Your task to perform on an android device: toggle notification dots Image 0: 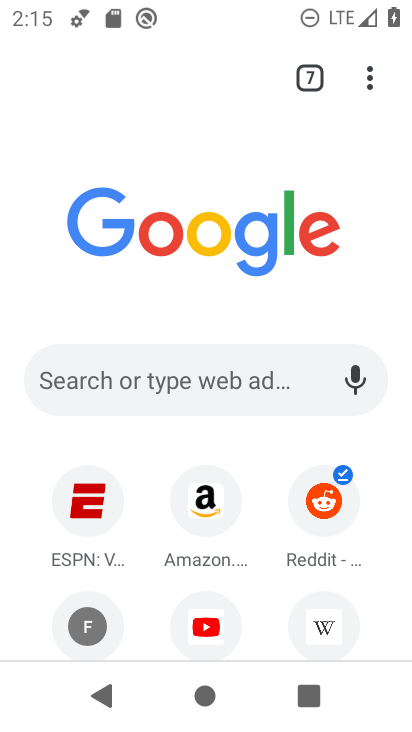
Step 0: press home button
Your task to perform on an android device: toggle notification dots Image 1: 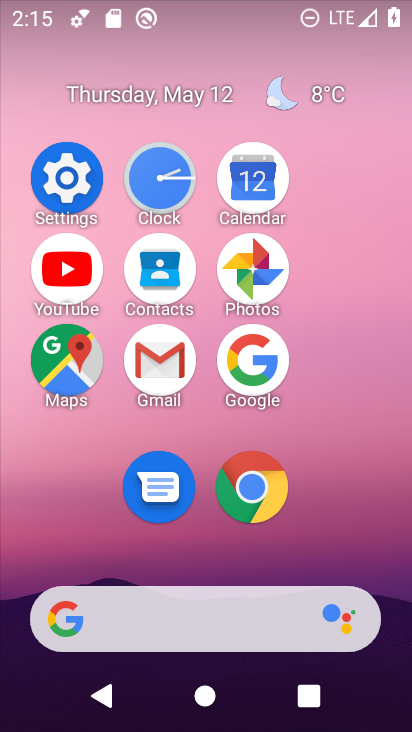
Step 1: click (52, 184)
Your task to perform on an android device: toggle notification dots Image 2: 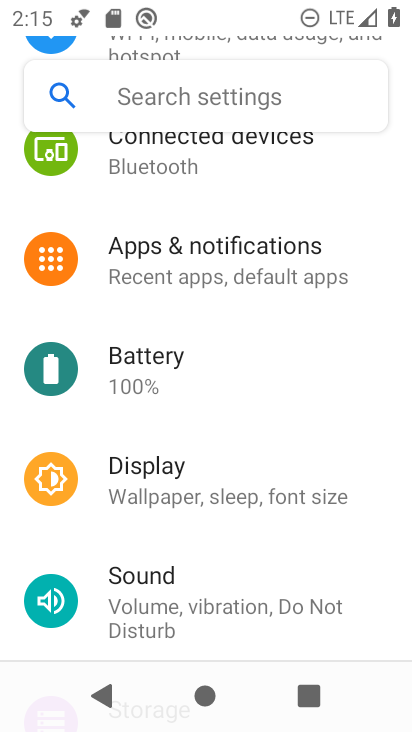
Step 2: click (264, 246)
Your task to perform on an android device: toggle notification dots Image 3: 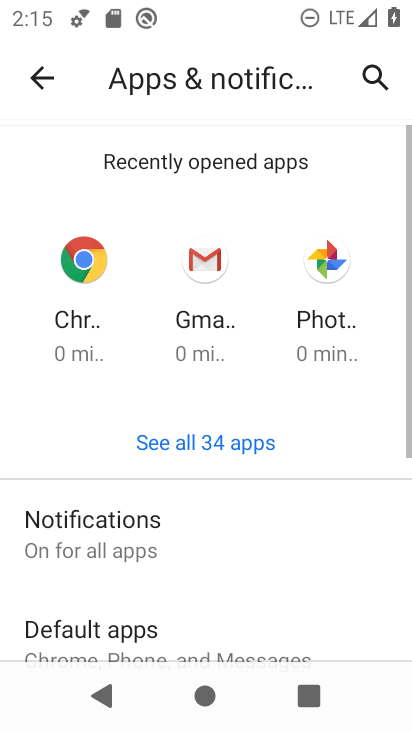
Step 3: drag from (270, 587) to (274, 169)
Your task to perform on an android device: toggle notification dots Image 4: 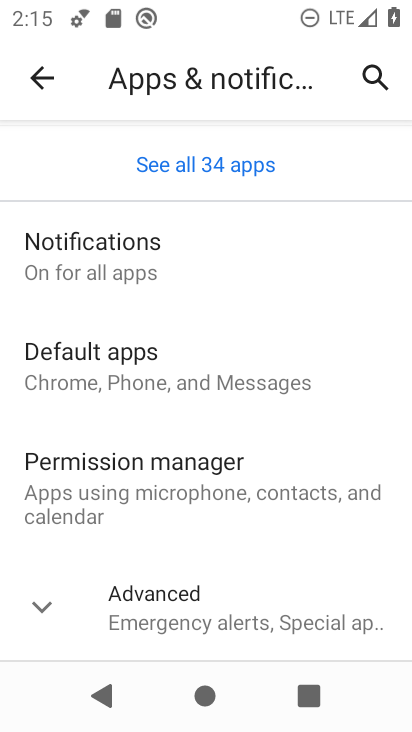
Step 4: click (216, 228)
Your task to perform on an android device: toggle notification dots Image 5: 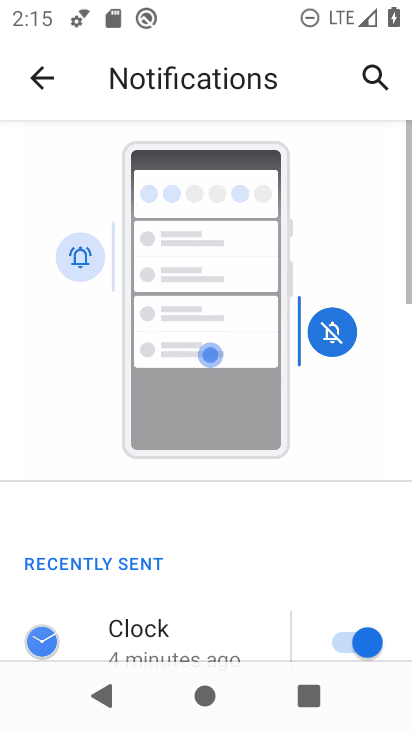
Step 5: drag from (237, 591) to (267, 156)
Your task to perform on an android device: toggle notification dots Image 6: 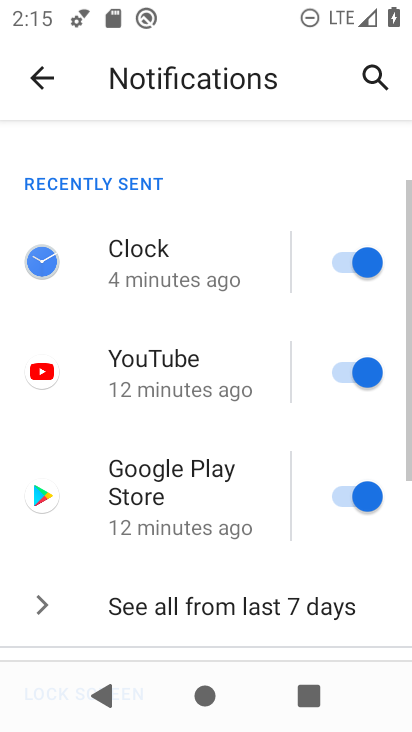
Step 6: drag from (215, 588) to (213, 140)
Your task to perform on an android device: toggle notification dots Image 7: 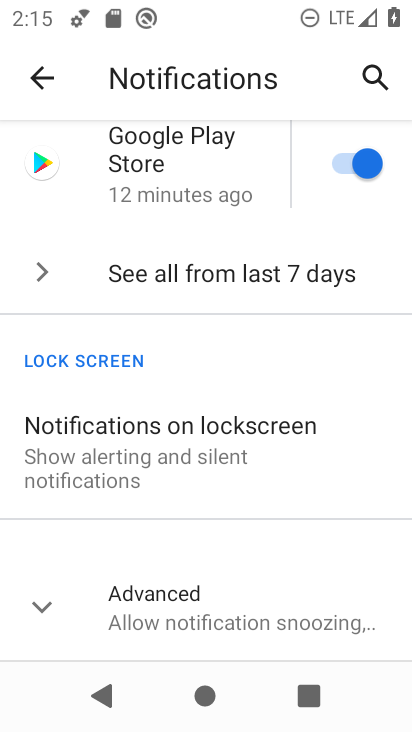
Step 7: click (192, 571)
Your task to perform on an android device: toggle notification dots Image 8: 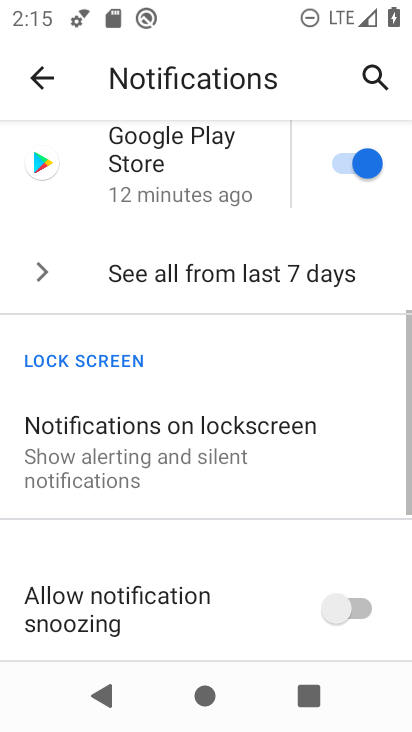
Step 8: drag from (189, 565) to (193, 198)
Your task to perform on an android device: toggle notification dots Image 9: 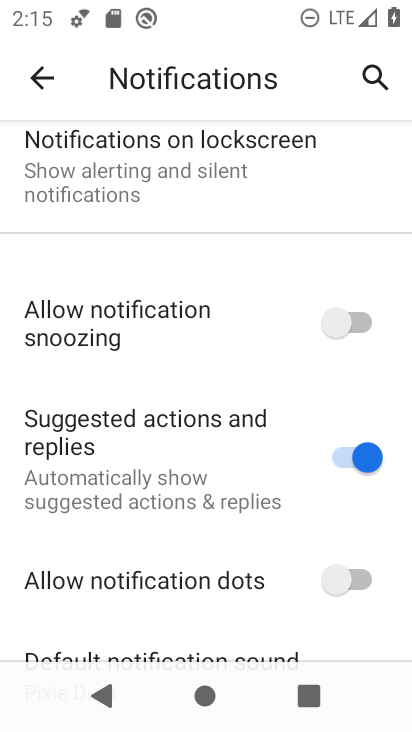
Step 9: click (361, 567)
Your task to perform on an android device: toggle notification dots Image 10: 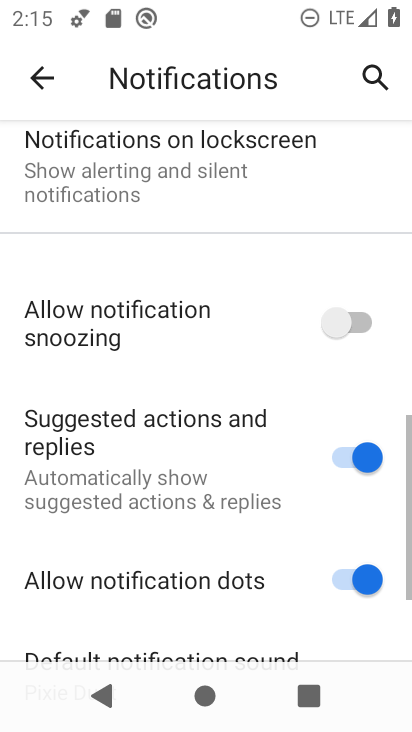
Step 10: task complete